Your task to perform on an android device: stop showing notifications on the lock screen Image 0: 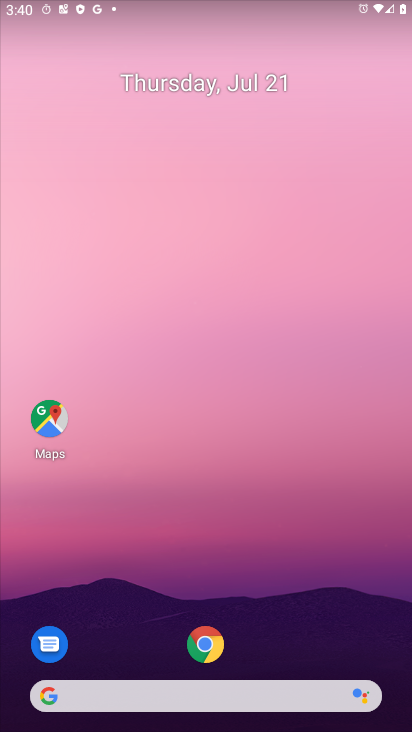
Step 0: press home button
Your task to perform on an android device: stop showing notifications on the lock screen Image 1: 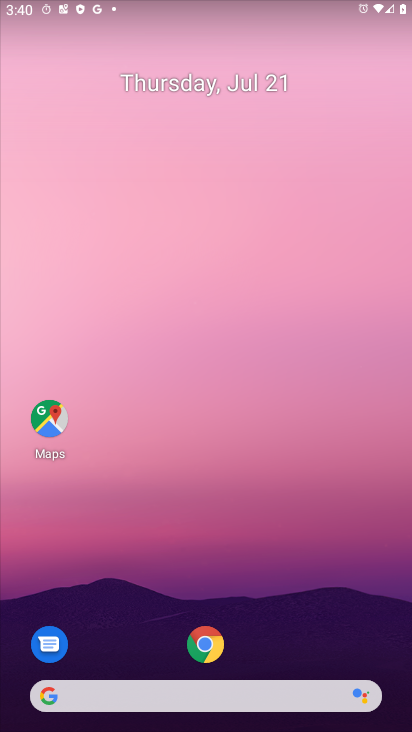
Step 1: drag from (337, 633) to (386, 71)
Your task to perform on an android device: stop showing notifications on the lock screen Image 2: 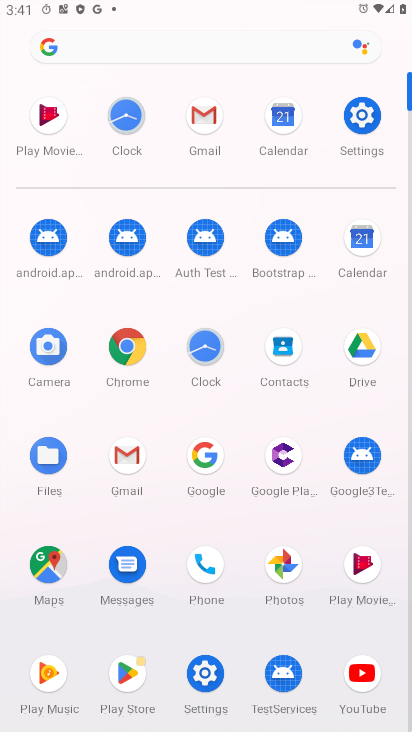
Step 2: click (363, 114)
Your task to perform on an android device: stop showing notifications on the lock screen Image 3: 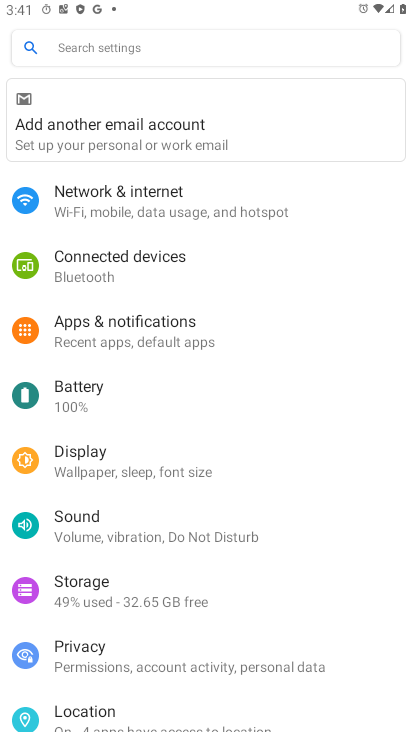
Step 3: click (155, 330)
Your task to perform on an android device: stop showing notifications on the lock screen Image 4: 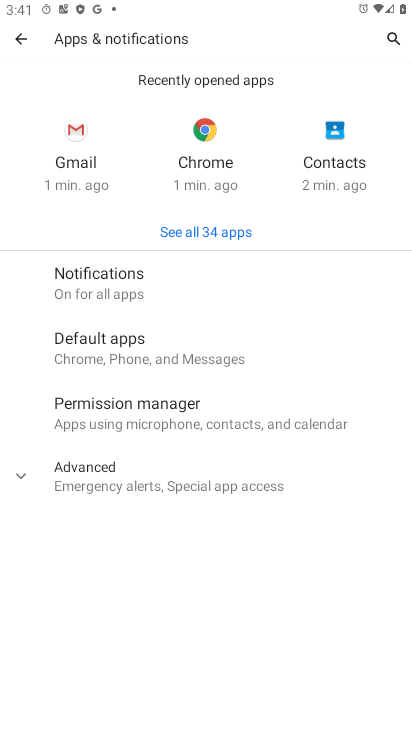
Step 4: click (111, 280)
Your task to perform on an android device: stop showing notifications on the lock screen Image 5: 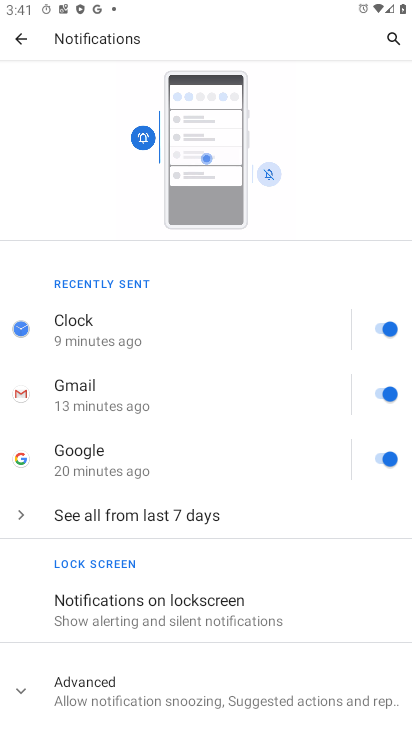
Step 5: click (145, 616)
Your task to perform on an android device: stop showing notifications on the lock screen Image 6: 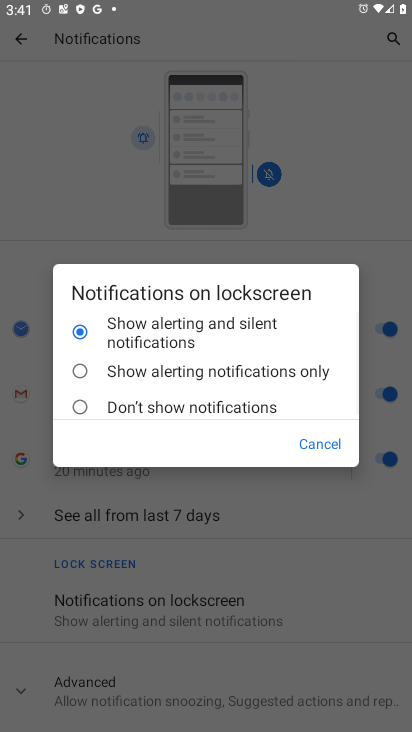
Step 6: click (82, 408)
Your task to perform on an android device: stop showing notifications on the lock screen Image 7: 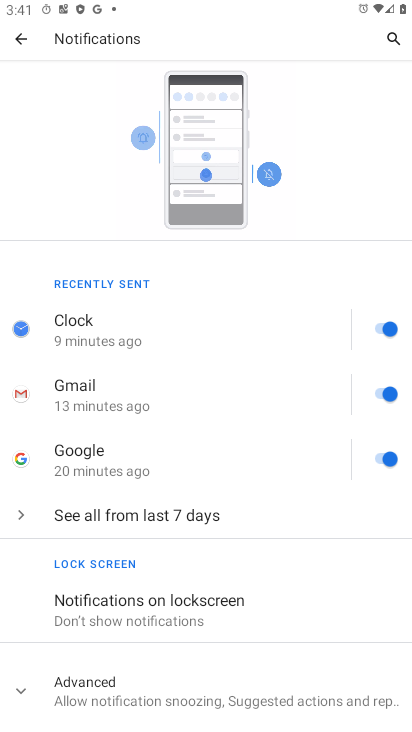
Step 7: task complete